Your task to perform on an android device: Open display settings Image 0: 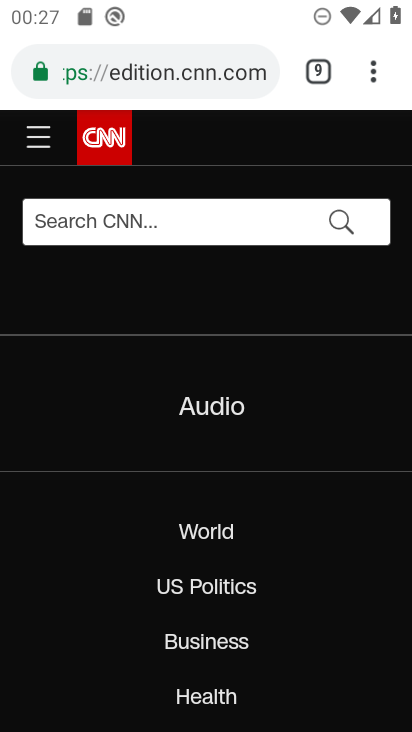
Step 0: press home button
Your task to perform on an android device: Open display settings Image 1: 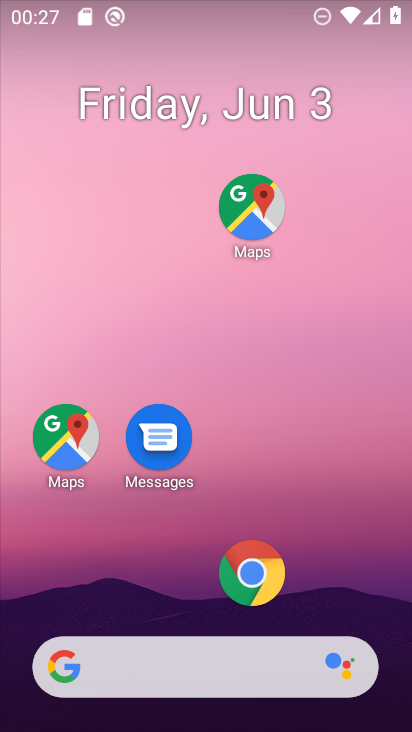
Step 1: drag from (323, 610) to (297, 182)
Your task to perform on an android device: Open display settings Image 2: 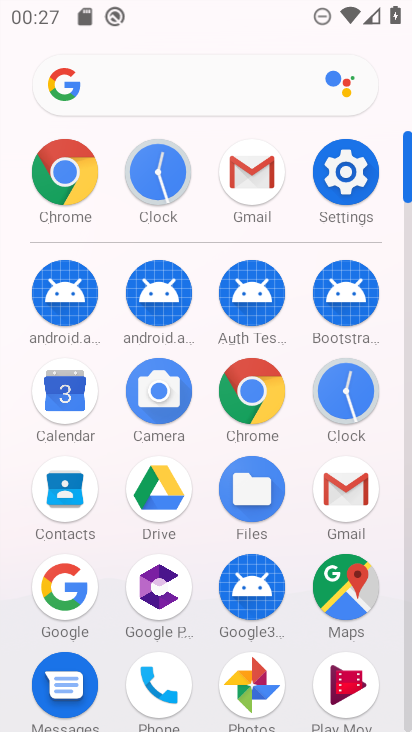
Step 2: click (351, 154)
Your task to perform on an android device: Open display settings Image 3: 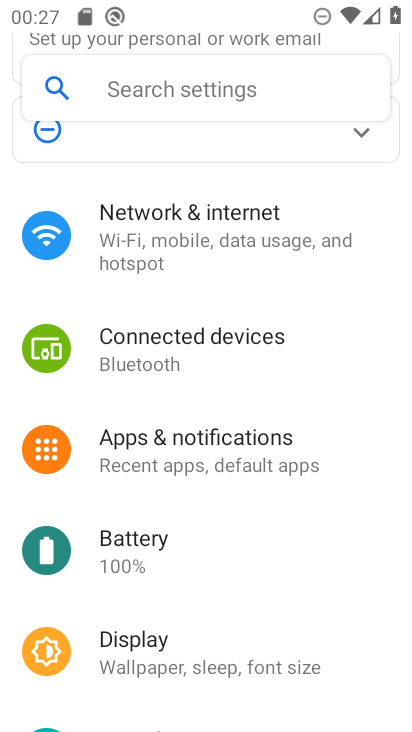
Step 3: click (169, 646)
Your task to perform on an android device: Open display settings Image 4: 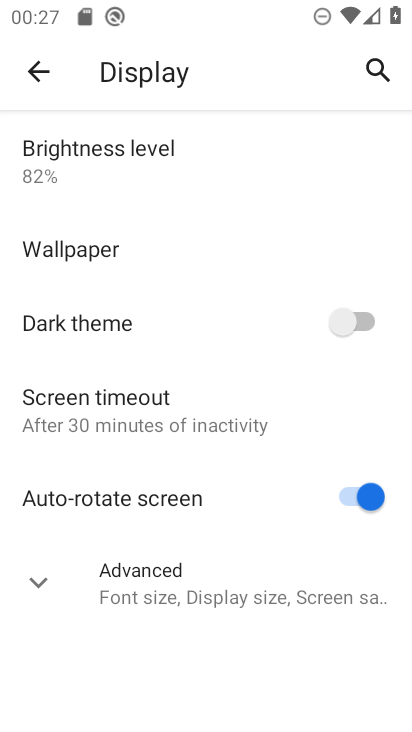
Step 4: task complete